Your task to perform on an android device: turn off notifications in google photos Image 0: 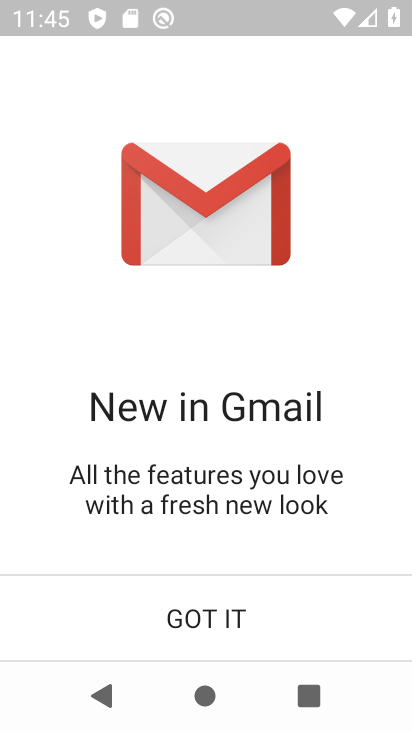
Step 0: press home button
Your task to perform on an android device: turn off notifications in google photos Image 1: 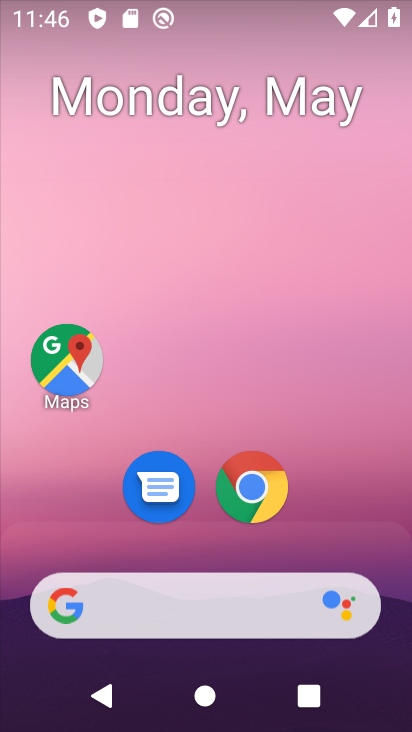
Step 1: drag from (140, 579) to (291, 1)
Your task to perform on an android device: turn off notifications in google photos Image 2: 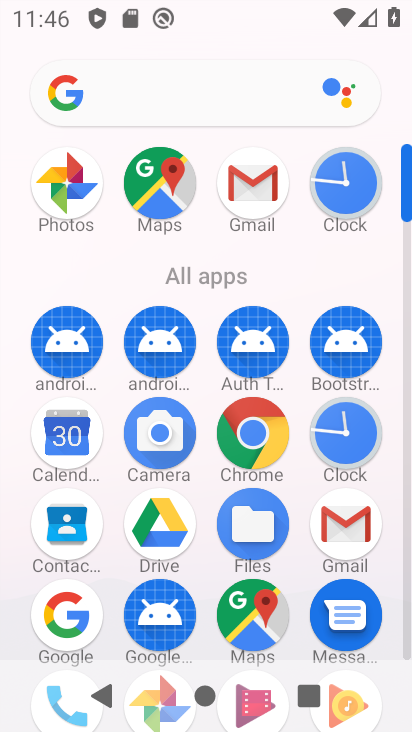
Step 2: drag from (137, 602) to (289, 284)
Your task to perform on an android device: turn off notifications in google photos Image 3: 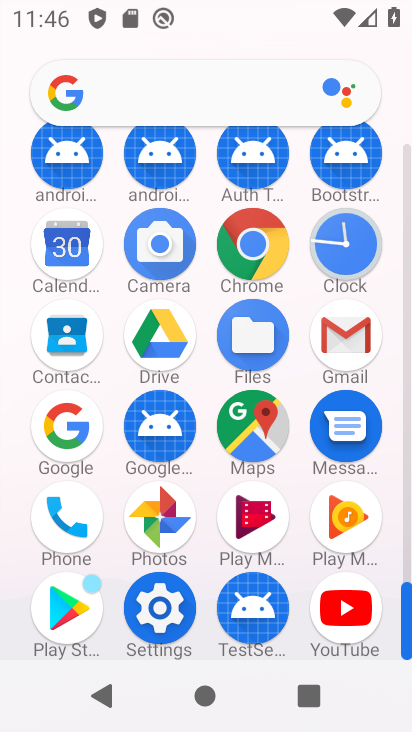
Step 3: click (153, 527)
Your task to perform on an android device: turn off notifications in google photos Image 4: 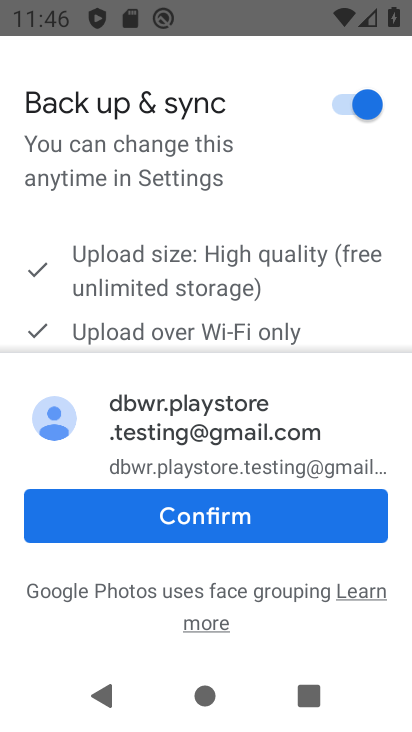
Step 4: click (280, 503)
Your task to perform on an android device: turn off notifications in google photos Image 5: 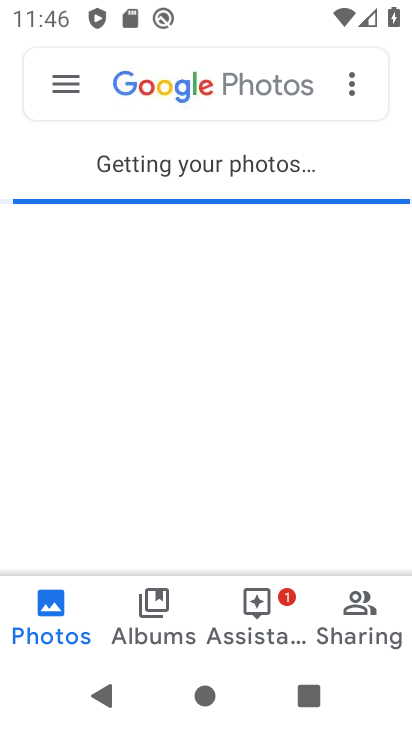
Step 5: click (90, 92)
Your task to perform on an android device: turn off notifications in google photos Image 6: 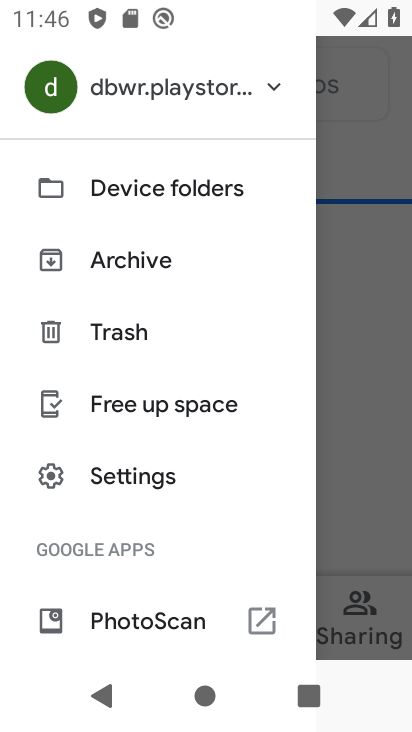
Step 6: click (123, 491)
Your task to perform on an android device: turn off notifications in google photos Image 7: 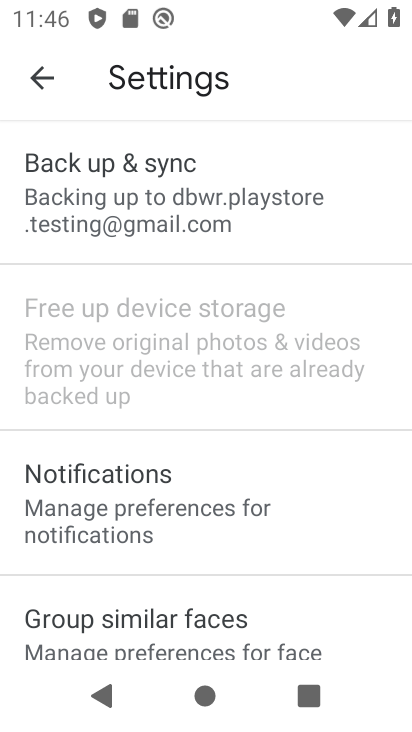
Step 7: click (134, 489)
Your task to perform on an android device: turn off notifications in google photos Image 8: 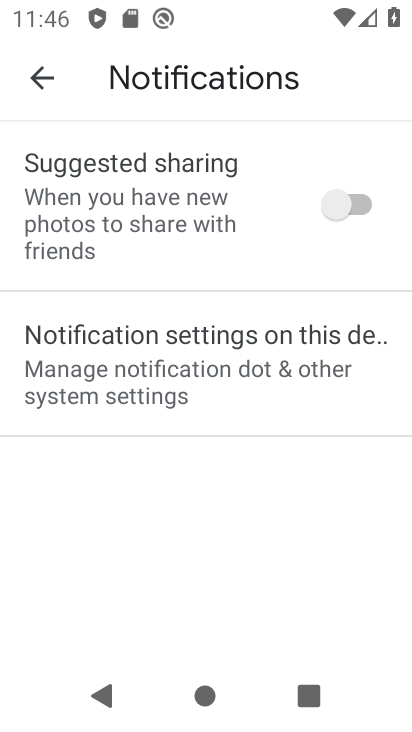
Step 8: click (230, 406)
Your task to perform on an android device: turn off notifications in google photos Image 9: 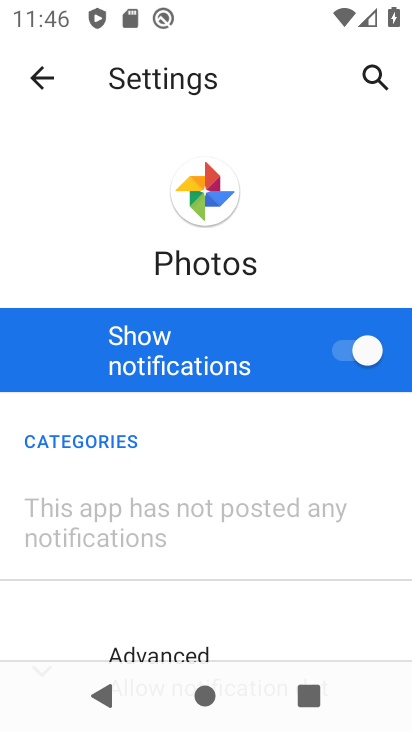
Step 9: click (337, 344)
Your task to perform on an android device: turn off notifications in google photos Image 10: 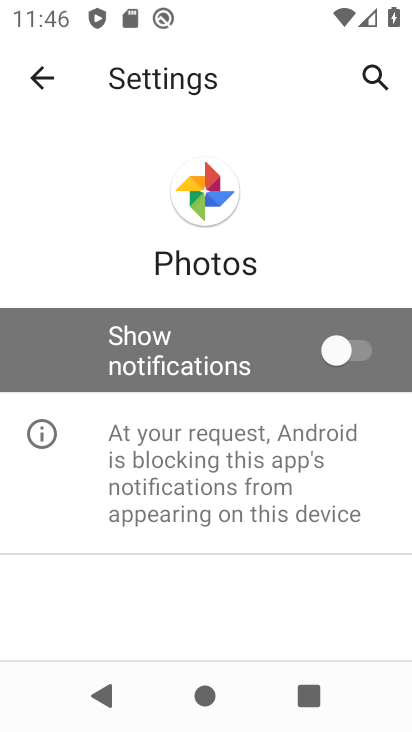
Step 10: task complete